Your task to perform on an android device: change your default location settings in chrome Image 0: 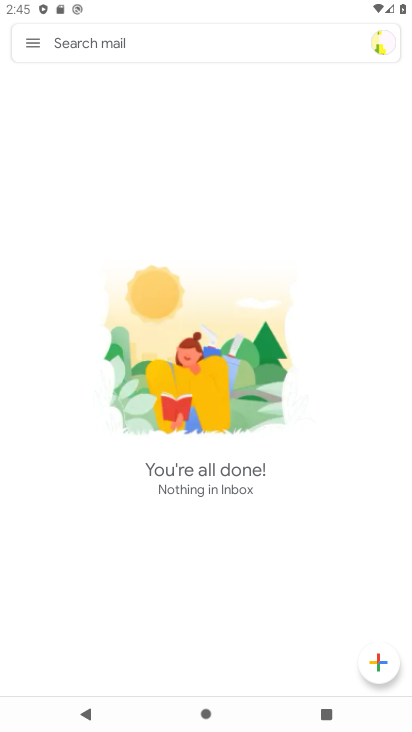
Step 0: press home button
Your task to perform on an android device: change your default location settings in chrome Image 1: 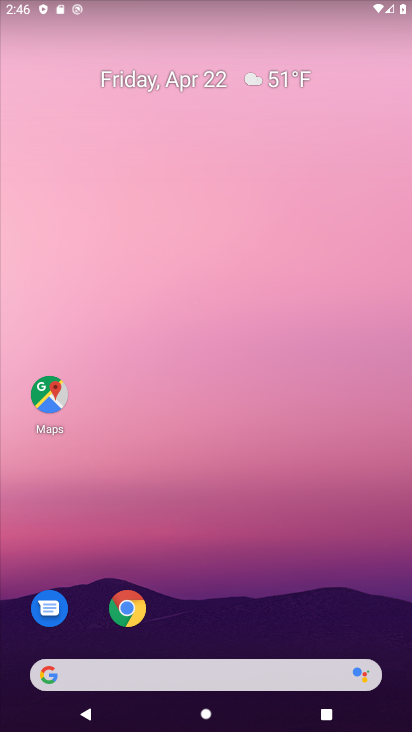
Step 1: drag from (263, 457) to (237, 78)
Your task to perform on an android device: change your default location settings in chrome Image 2: 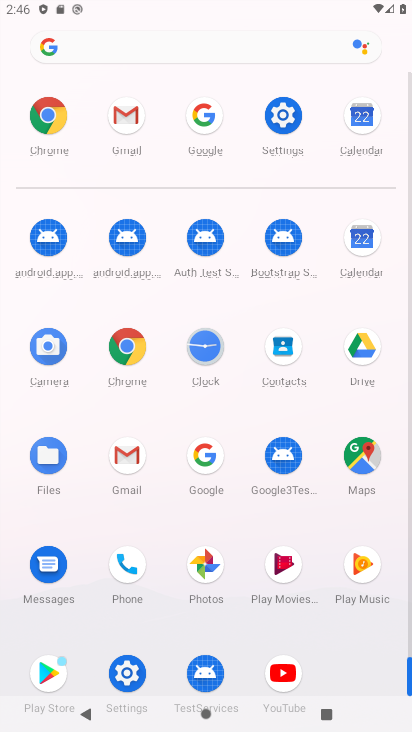
Step 2: click (121, 345)
Your task to perform on an android device: change your default location settings in chrome Image 3: 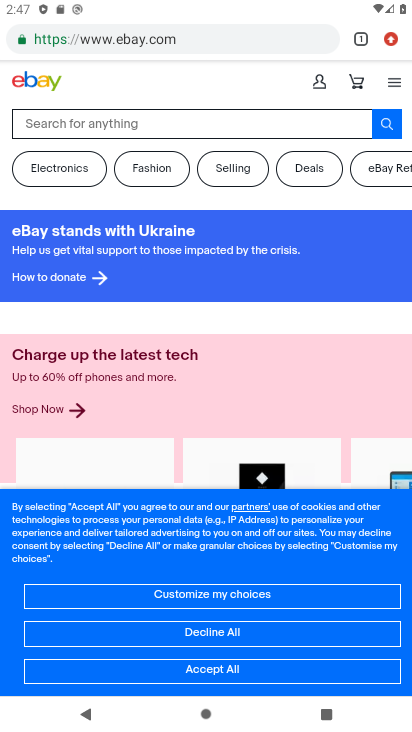
Step 3: click (393, 41)
Your task to perform on an android device: change your default location settings in chrome Image 4: 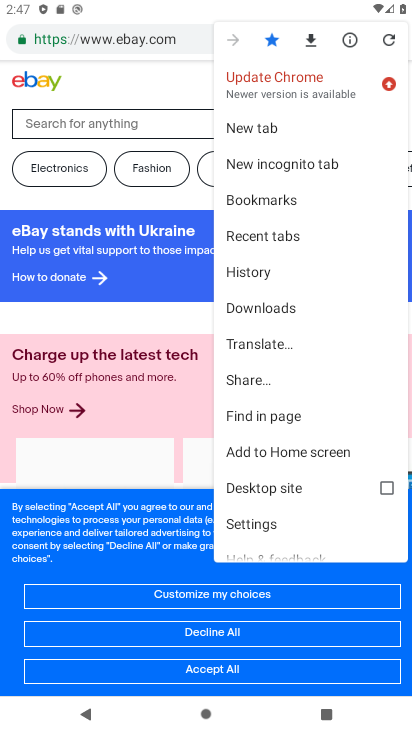
Step 4: click (283, 522)
Your task to perform on an android device: change your default location settings in chrome Image 5: 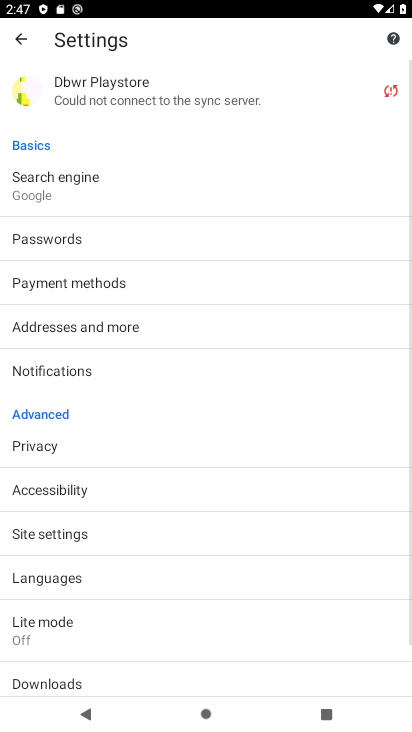
Step 5: click (71, 533)
Your task to perform on an android device: change your default location settings in chrome Image 6: 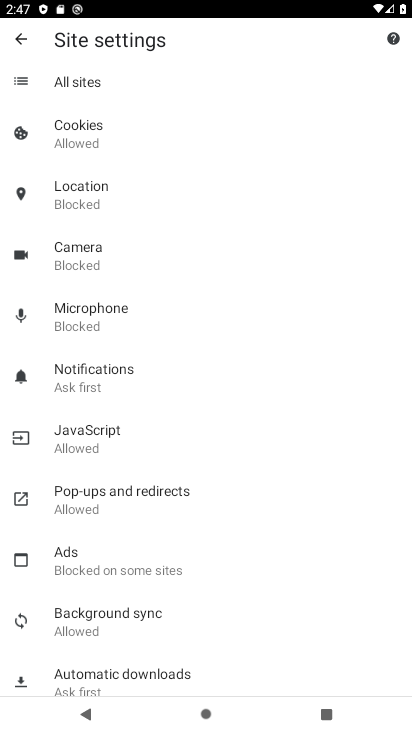
Step 6: click (76, 196)
Your task to perform on an android device: change your default location settings in chrome Image 7: 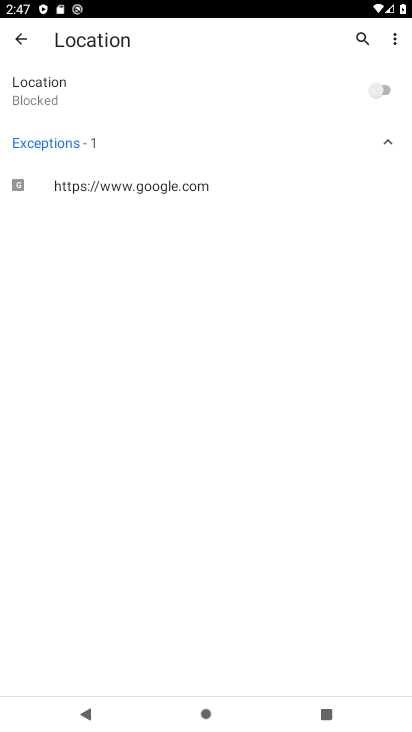
Step 7: click (387, 91)
Your task to perform on an android device: change your default location settings in chrome Image 8: 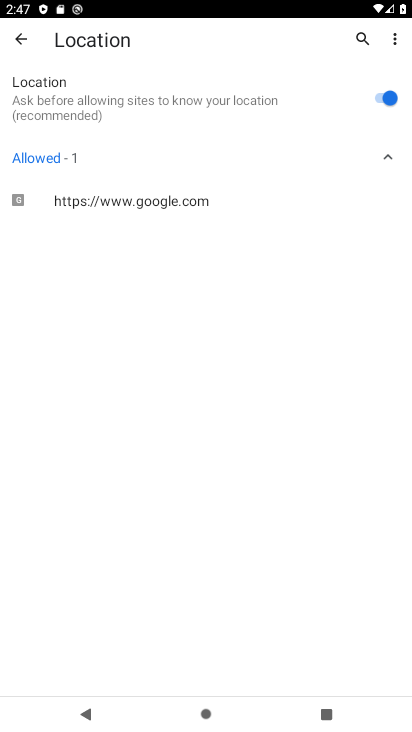
Step 8: task complete